Your task to perform on an android device: add a label to a message in the gmail app Image 0: 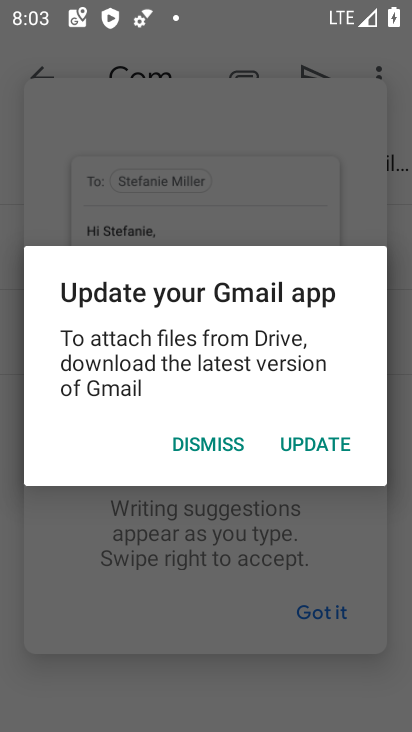
Step 0: press home button
Your task to perform on an android device: add a label to a message in the gmail app Image 1: 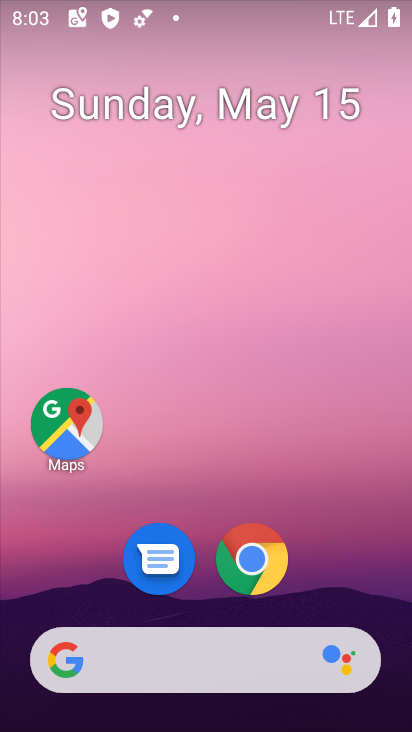
Step 1: drag from (383, 572) to (351, 133)
Your task to perform on an android device: add a label to a message in the gmail app Image 2: 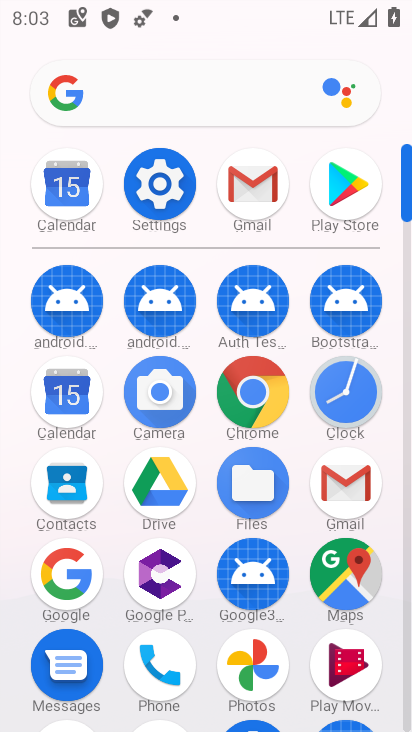
Step 2: click (237, 214)
Your task to perform on an android device: add a label to a message in the gmail app Image 3: 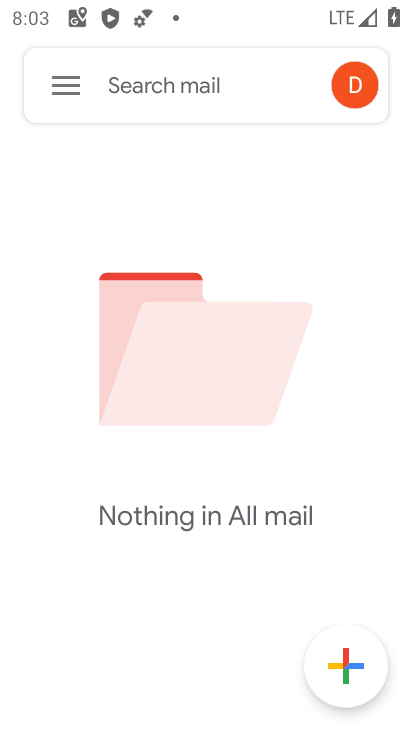
Step 3: click (62, 94)
Your task to perform on an android device: add a label to a message in the gmail app Image 4: 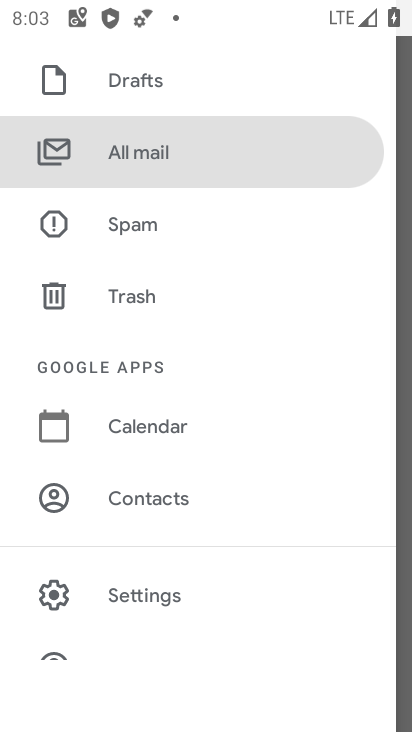
Step 4: drag from (128, 180) to (147, 419)
Your task to perform on an android device: add a label to a message in the gmail app Image 5: 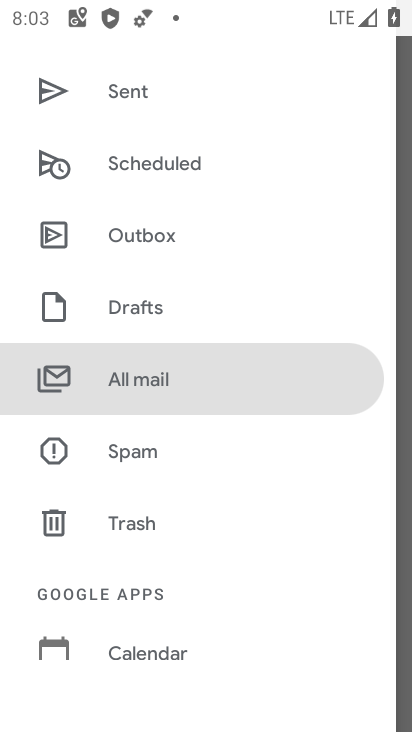
Step 5: click (160, 167)
Your task to perform on an android device: add a label to a message in the gmail app Image 6: 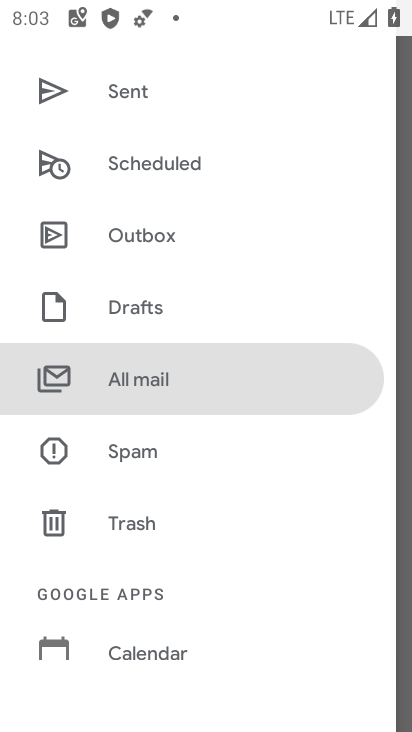
Step 6: drag from (160, 167) to (166, 268)
Your task to perform on an android device: add a label to a message in the gmail app Image 7: 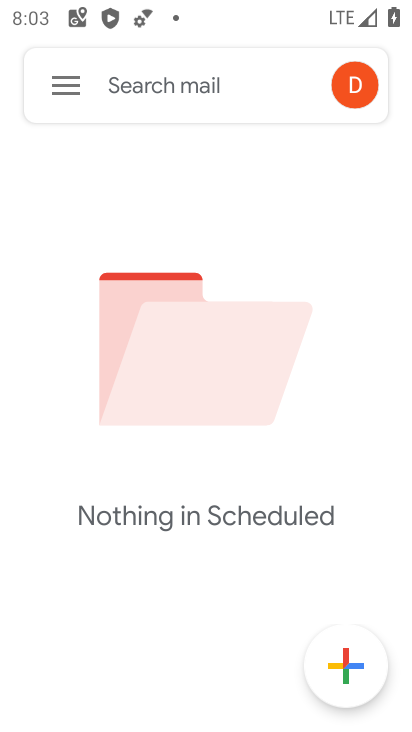
Step 7: click (77, 89)
Your task to perform on an android device: add a label to a message in the gmail app Image 8: 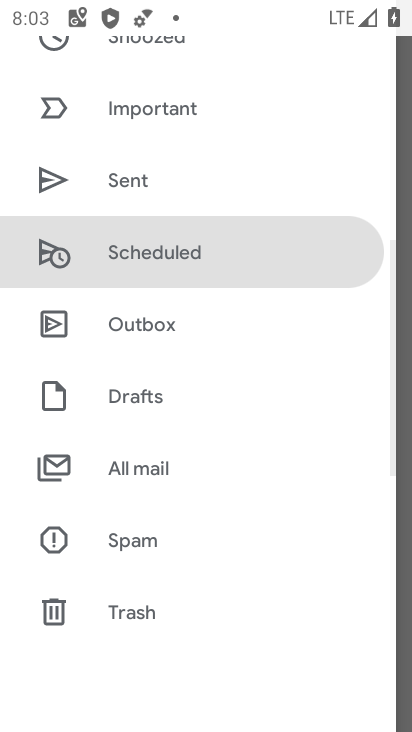
Step 8: drag from (178, 162) to (187, 447)
Your task to perform on an android device: add a label to a message in the gmail app Image 9: 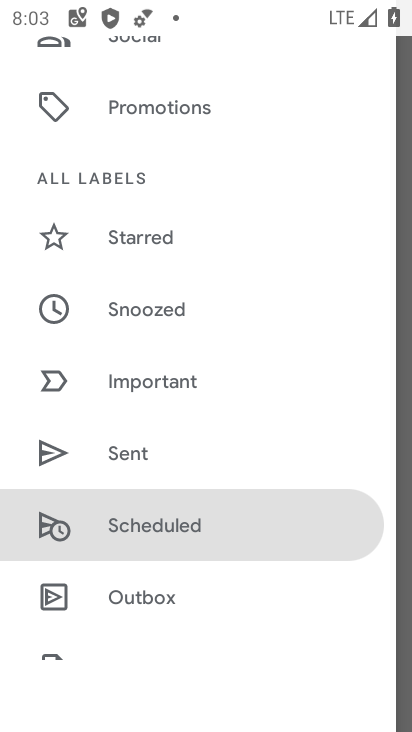
Step 9: drag from (168, 133) to (181, 298)
Your task to perform on an android device: add a label to a message in the gmail app Image 10: 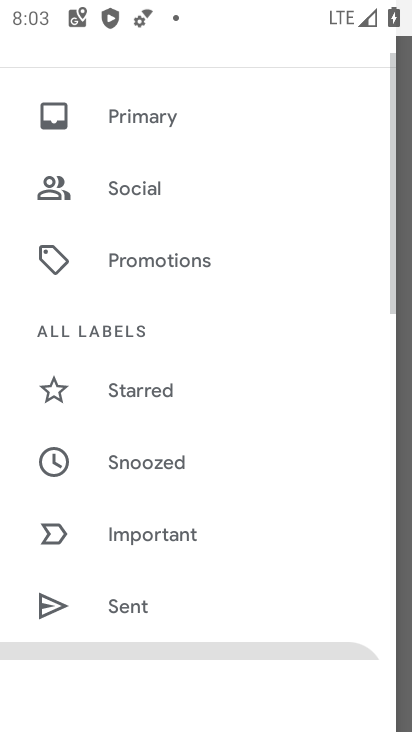
Step 10: click (181, 298)
Your task to perform on an android device: add a label to a message in the gmail app Image 11: 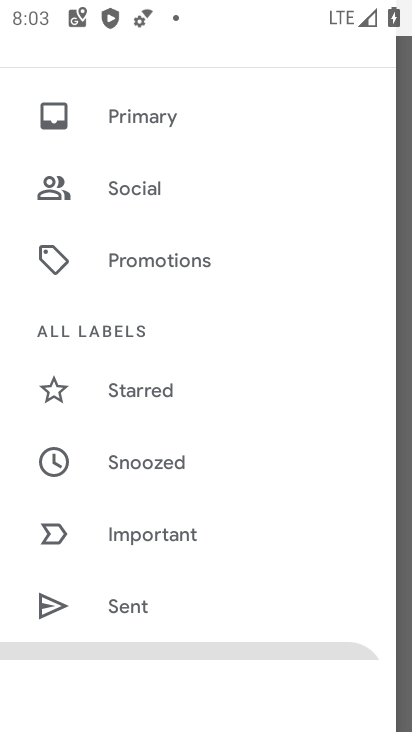
Step 11: click (189, 132)
Your task to perform on an android device: add a label to a message in the gmail app Image 12: 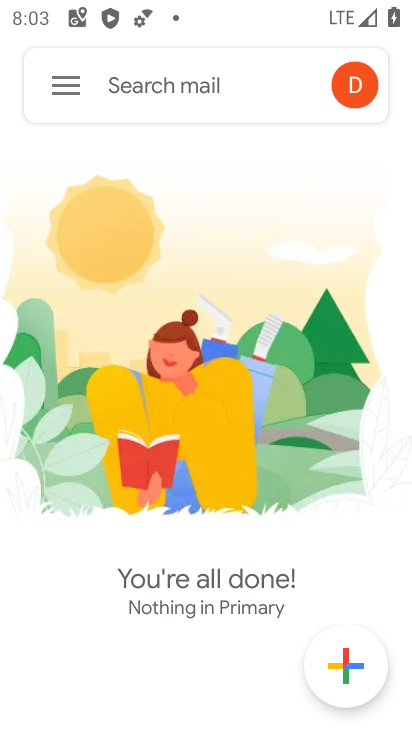
Step 12: task complete